Your task to perform on an android device: Show me popular games on the Play Store Image 0: 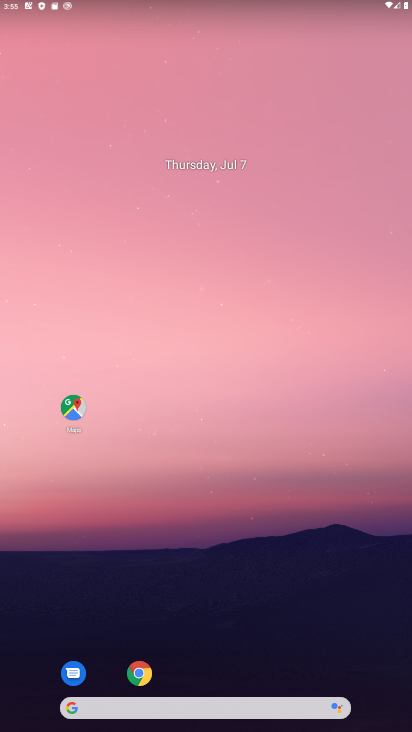
Step 0: drag from (178, 598) to (246, 154)
Your task to perform on an android device: Show me popular games on the Play Store Image 1: 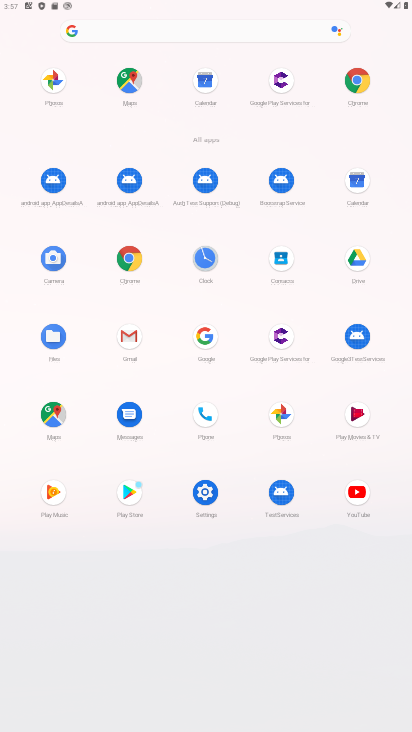
Step 1: click (122, 493)
Your task to perform on an android device: Show me popular games on the Play Store Image 2: 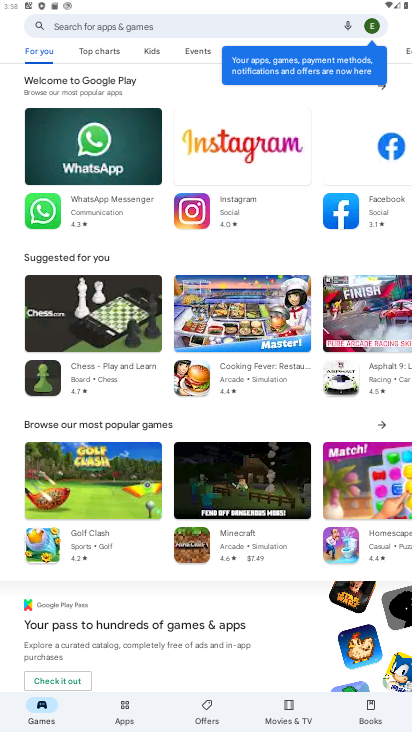
Step 2: click (384, 426)
Your task to perform on an android device: Show me popular games on the Play Store Image 3: 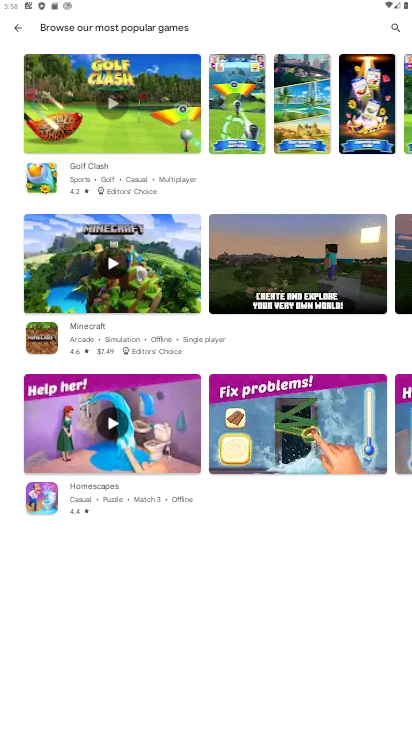
Step 3: task complete